Your task to perform on an android device: Go to display settings Image 0: 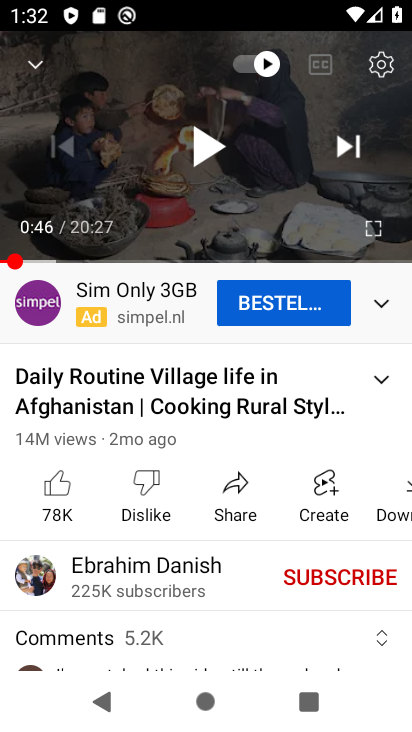
Step 0: press home button
Your task to perform on an android device: Go to display settings Image 1: 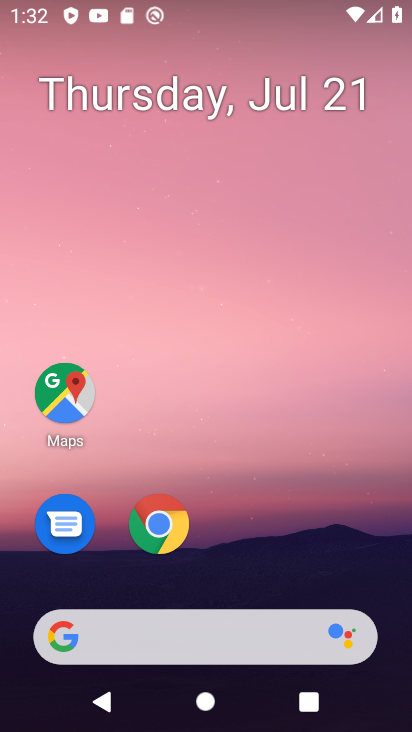
Step 1: drag from (241, 494) to (213, 8)
Your task to perform on an android device: Go to display settings Image 2: 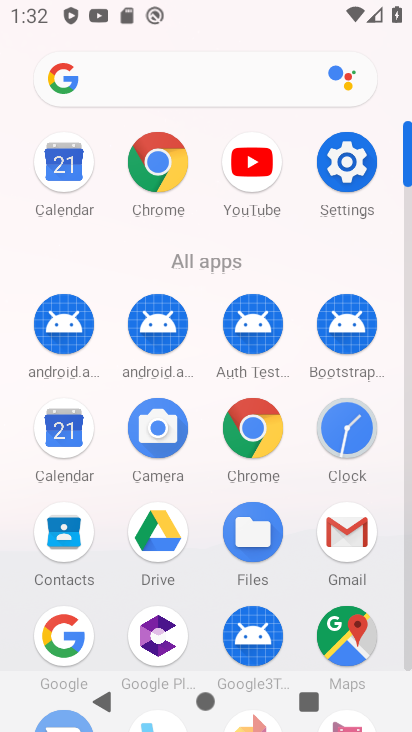
Step 2: click (351, 166)
Your task to perform on an android device: Go to display settings Image 3: 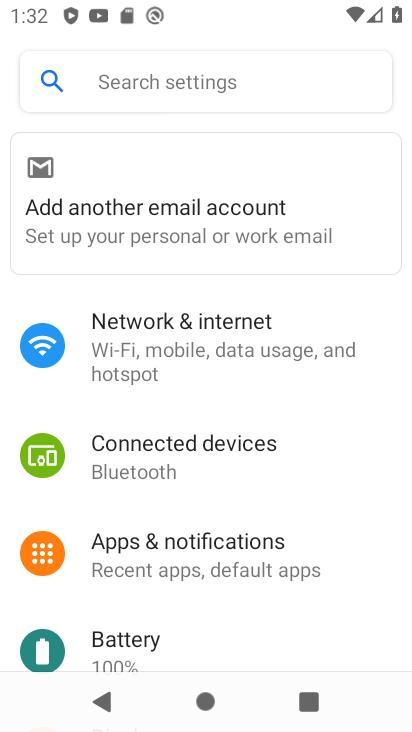
Step 3: drag from (232, 597) to (259, 115)
Your task to perform on an android device: Go to display settings Image 4: 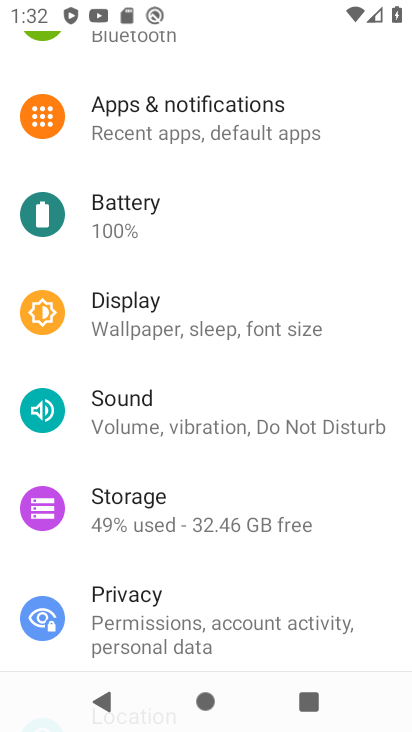
Step 4: click (204, 317)
Your task to perform on an android device: Go to display settings Image 5: 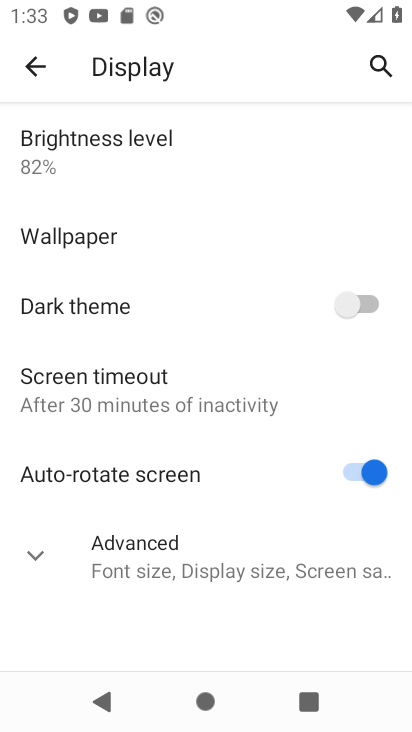
Step 5: task complete